Your task to perform on an android device: Open the stopwatch Image 0: 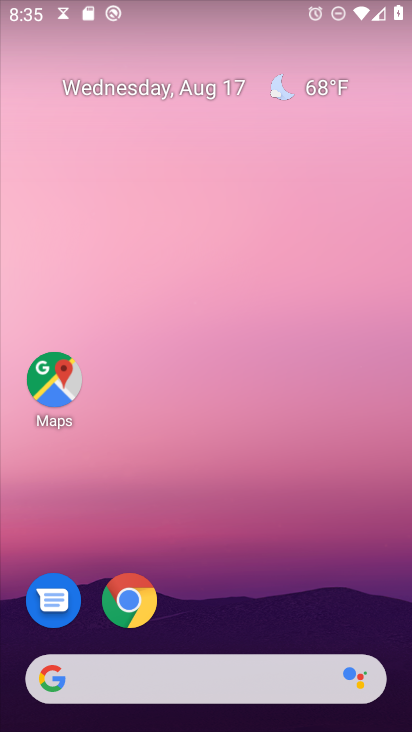
Step 0: press home button
Your task to perform on an android device: Open the stopwatch Image 1: 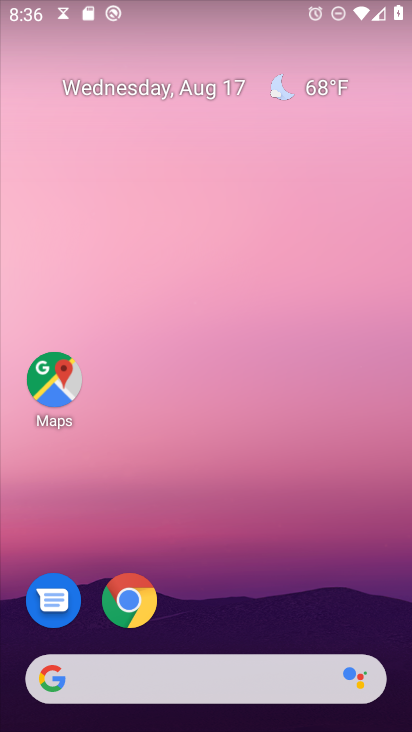
Step 1: drag from (248, 522) to (247, 117)
Your task to perform on an android device: Open the stopwatch Image 2: 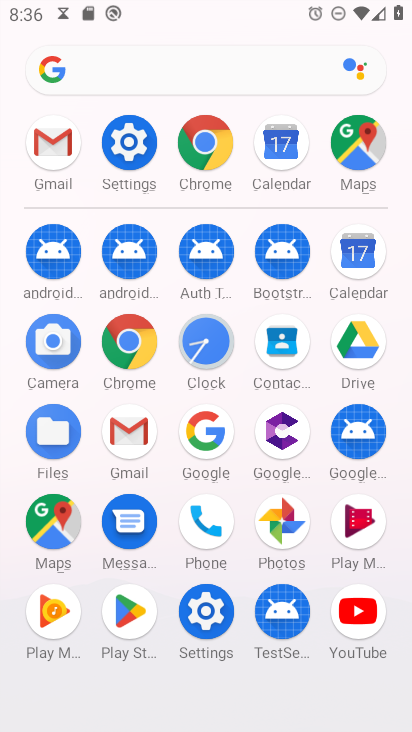
Step 2: click (211, 347)
Your task to perform on an android device: Open the stopwatch Image 3: 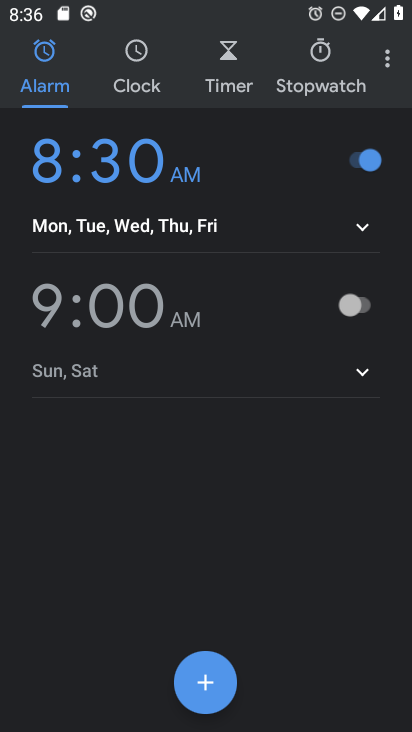
Step 3: click (307, 71)
Your task to perform on an android device: Open the stopwatch Image 4: 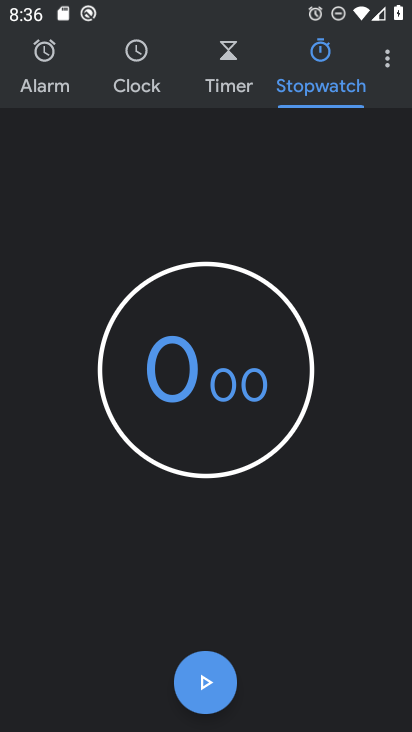
Step 4: task complete